Your task to perform on an android device: snooze an email in the gmail app Image 0: 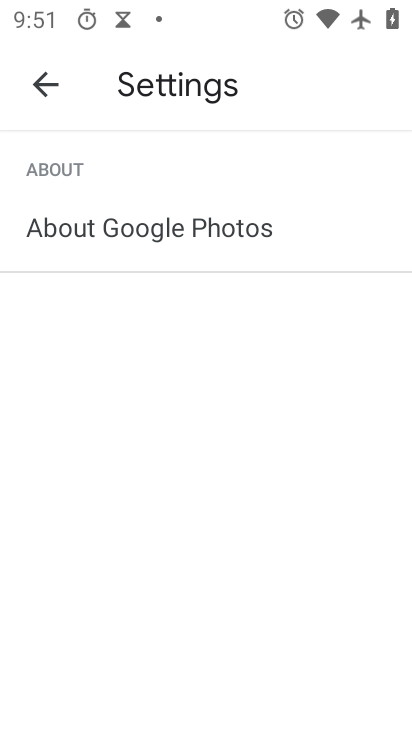
Step 0: press home button
Your task to perform on an android device: snooze an email in the gmail app Image 1: 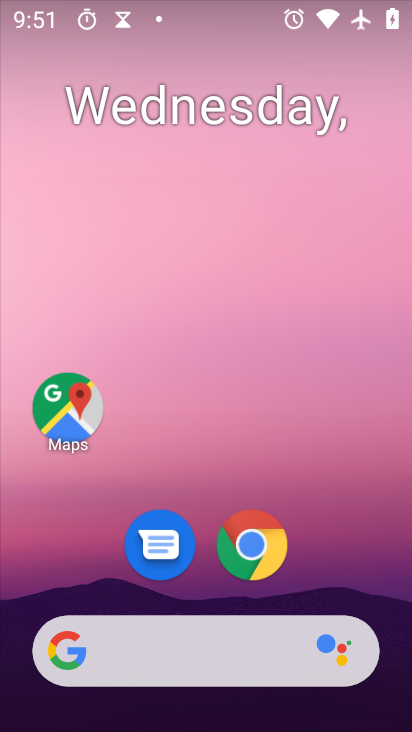
Step 1: drag from (193, 674) to (352, 90)
Your task to perform on an android device: snooze an email in the gmail app Image 2: 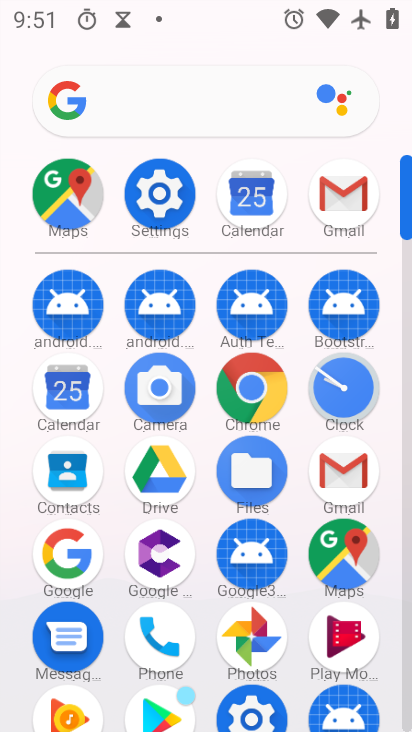
Step 2: click (346, 210)
Your task to perform on an android device: snooze an email in the gmail app Image 3: 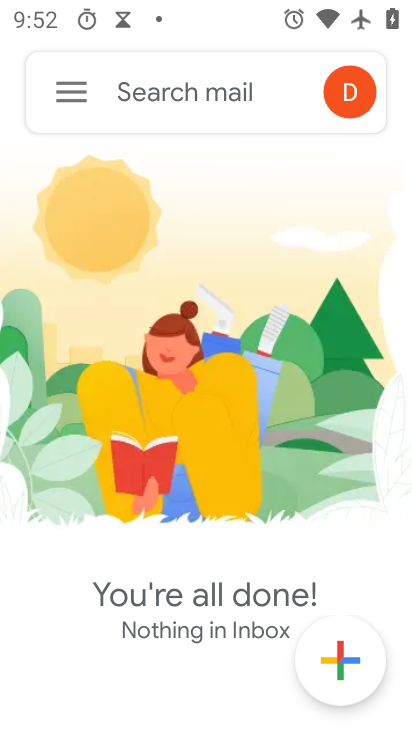
Step 3: task complete